Your task to perform on an android device: Search for Italian restaurants on Maps Image 0: 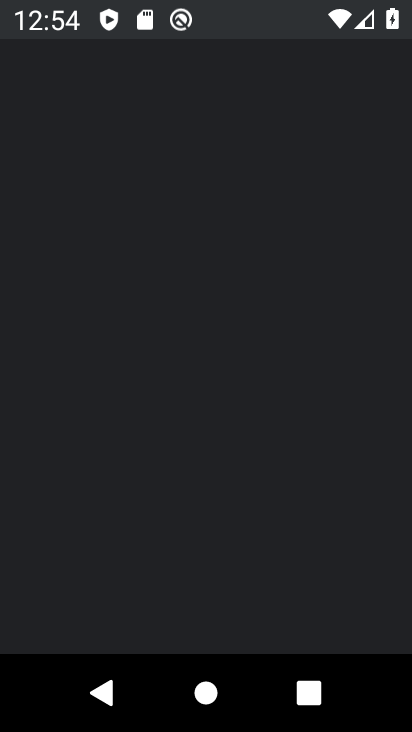
Step 0: drag from (315, 540) to (408, 111)
Your task to perform on an android device: Search for Italian restaurants on Maps Image 1: 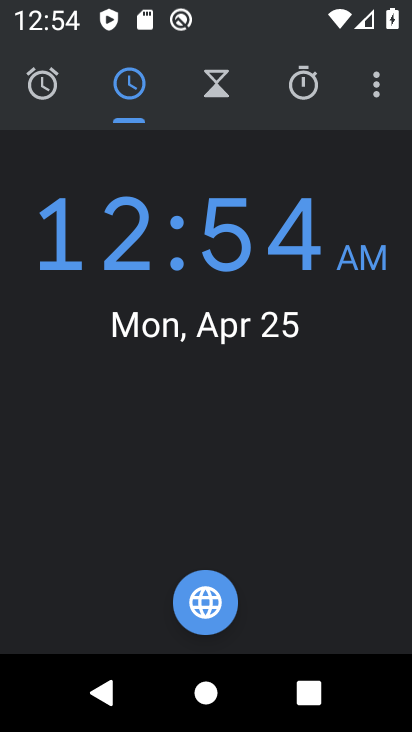
Step 1: press home button
Your task to perform on an android device: Search for Italian restaurants on Maps Image 2: 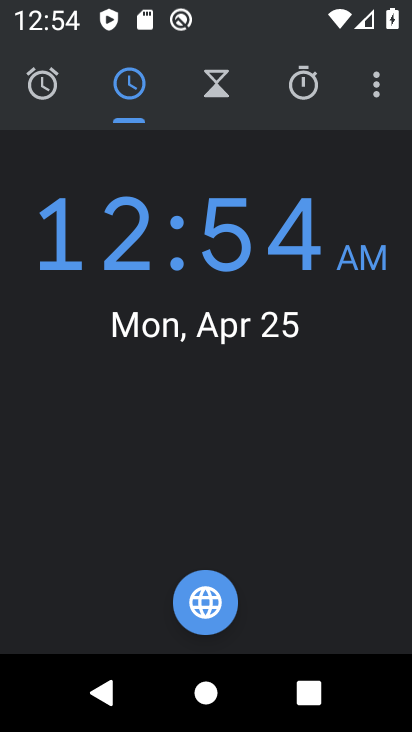
Step 2: drag from (408, 111) to (411, 468)
Your task to perform on an android device: Search for Italian restaurants on Maps Image 3: 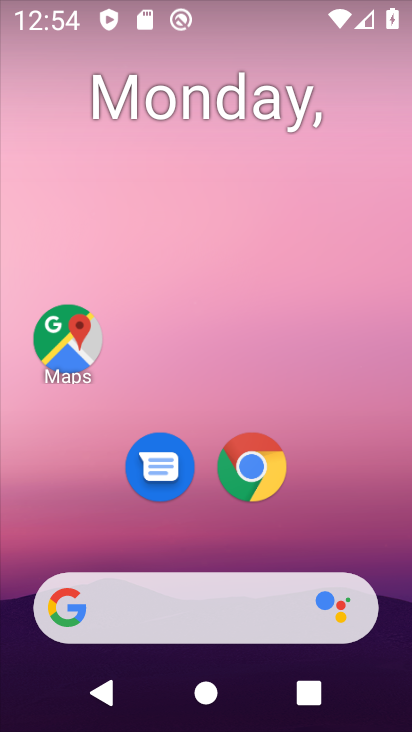
Step 3: click (49, 333)
Your task to perform on an android device: Search for Italian restaurants on Maps Image 4: 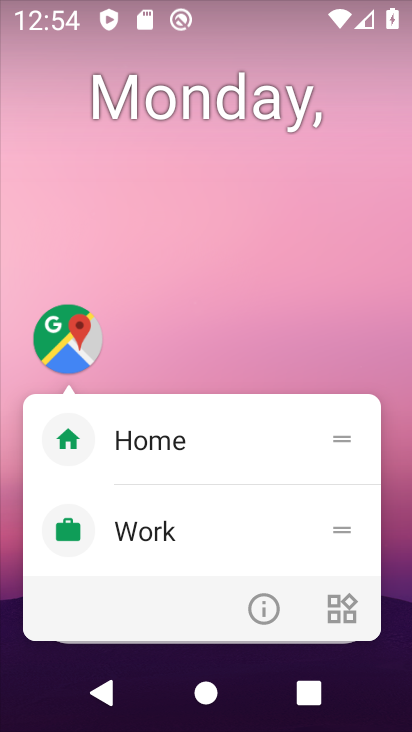
Step 4: click (49, 332)
Your task to perform on an android device: Search for Italian restaurants on Maps Image 5: 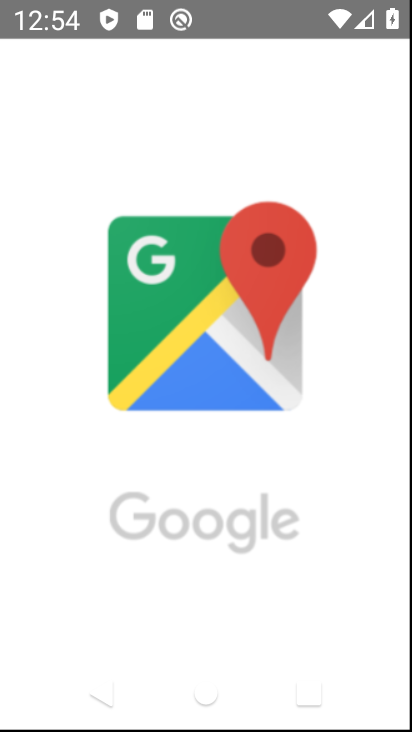
Step 5: press back button
Your task to perform on an android device: Search for Italian restaurants on Maps Image 6: 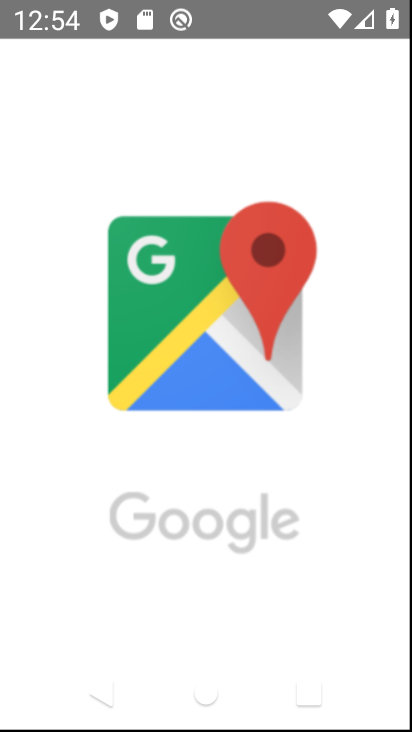
Step 6: press home button
Your task to perform on an android device: Search for Italian restaurants on Maps Image 7: 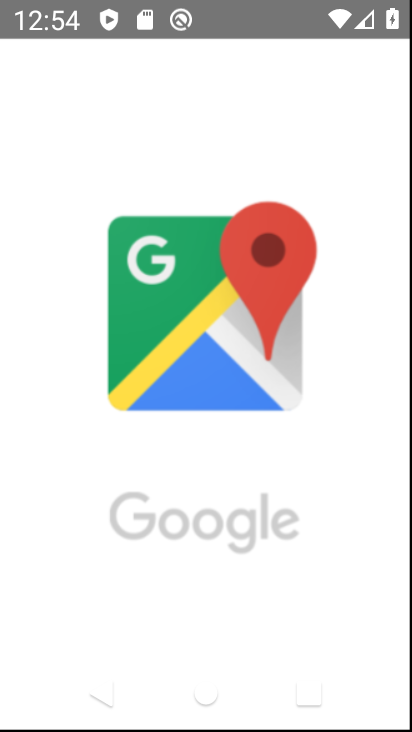
Step 7: press home button
Your task to perform on an android device: Search for Italian restaurants on Maps Image 8: 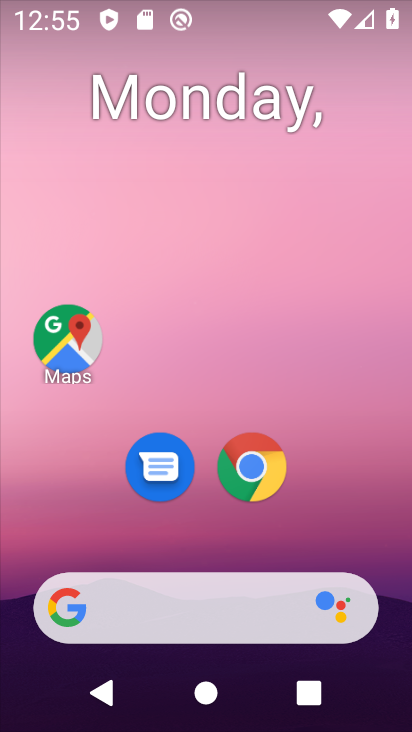
Step 8: click (63, 335)
Your task to perform on an android device: Search for Italian restaurants on Maps Image 9: 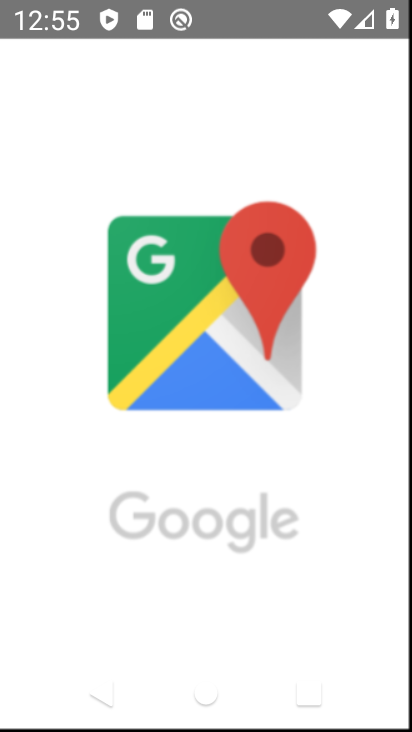
Step 9: task complete